Your task to perform on an android device: allow notifications from all sites in the chrome app Image 0: 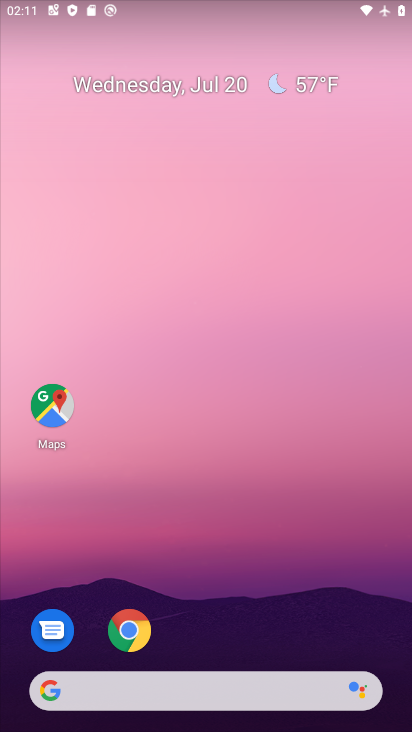
Step 0: drag from (275, 554) to (265, 82)
Your task to perform on an android device: allow notifications from all sites in the chrome app Image 1: 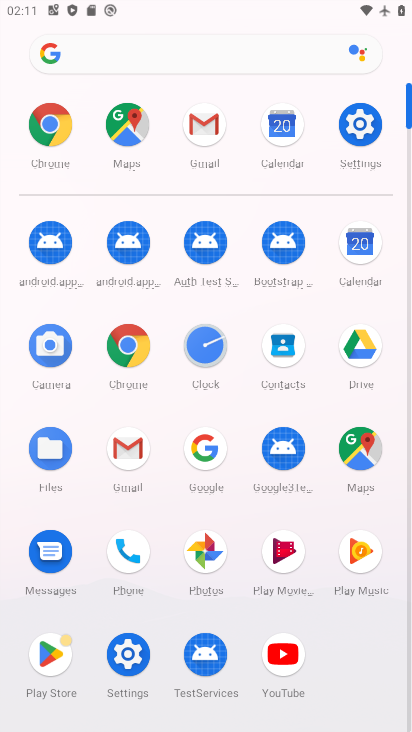
Step 1: click (127, 346)
Your task to perform on an android device: allow notifications from all sites in the chrome app Image 2: 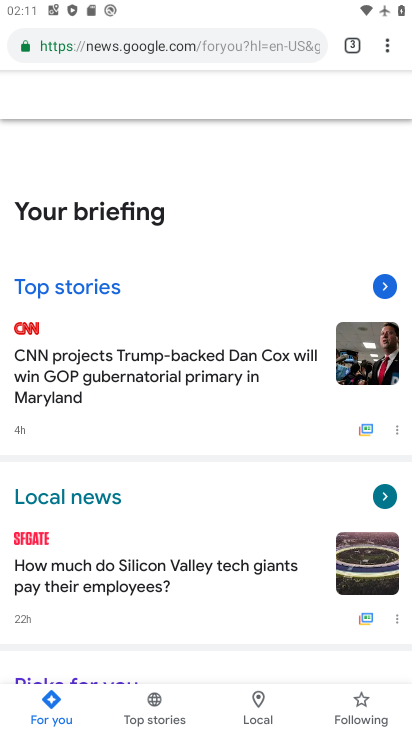
Step 2: drag from (384, 36) to (237, 604)
Your task to perform on an android device: allow notifications from all sites in the chrome app Image 3: 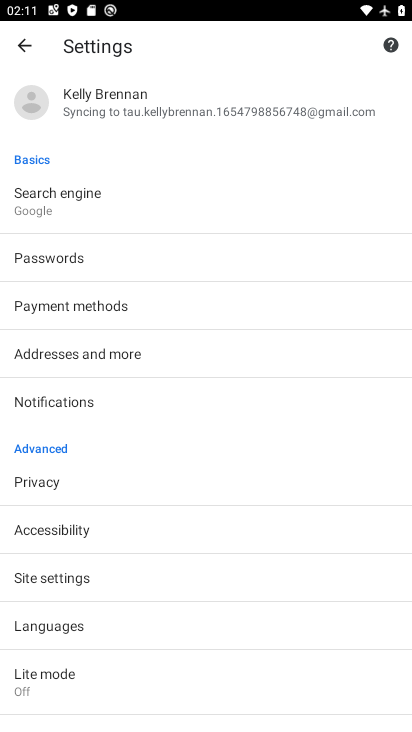
Step 3: click (60, 574)
Your task to perform on an android device: allow notifications from all sites in the chrome app Image 4: 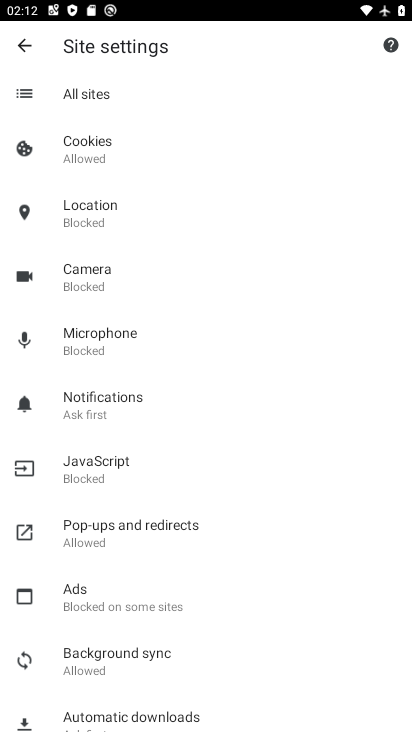
Step 4: click (113, 402)
Your task to perform on an android device: allow notifications from all sites in the chrome app Image 5: 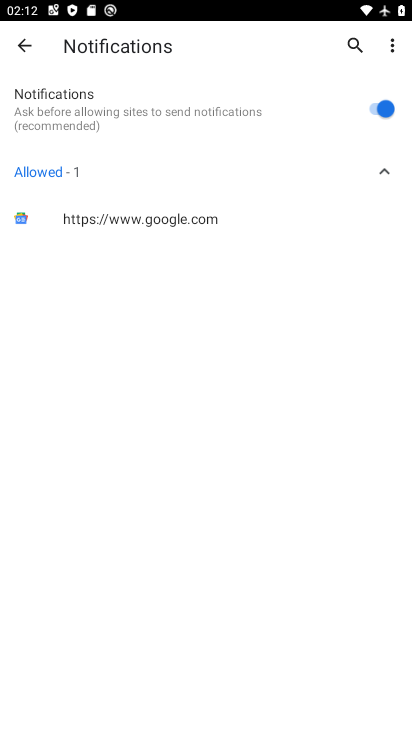
Step 5: task complete